Your task to perform on an android device: Go to Android settings Image 0: 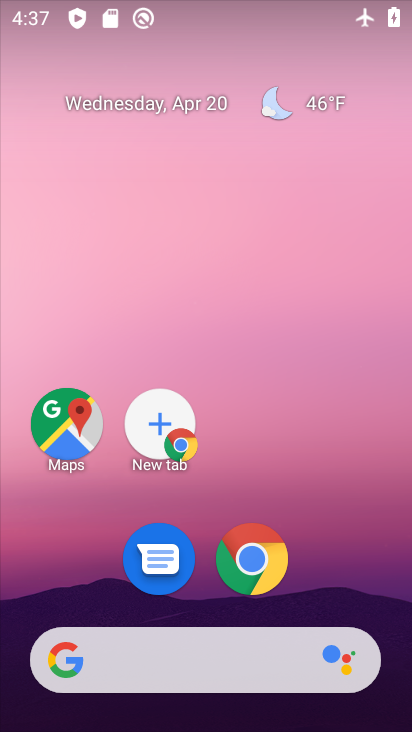
Step 0: drag from (334, 564) to (268, 121)
Your task to perform on an android device: Go to Android settings Image 1: 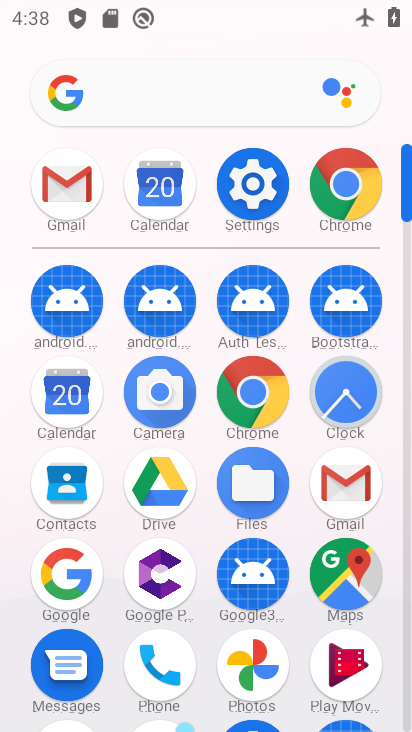
Step 1: click (262, 180)
Your task to perform on an android device: Go to Android settings Image 2: 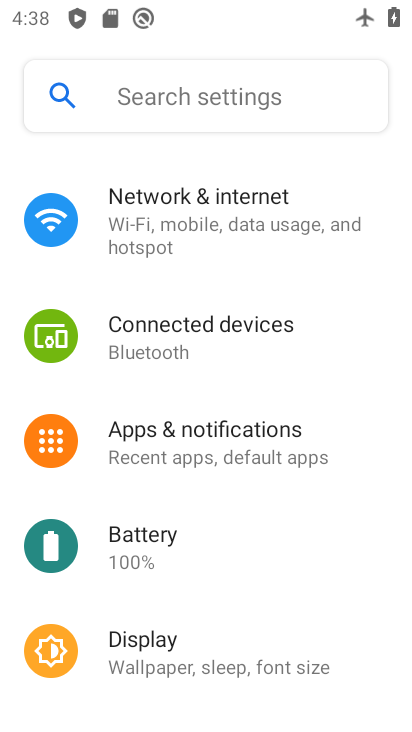
Step 2: drag from (303, 538) to (283, 208)
Your task to perform on an android device: Go to Android settings Image 3: 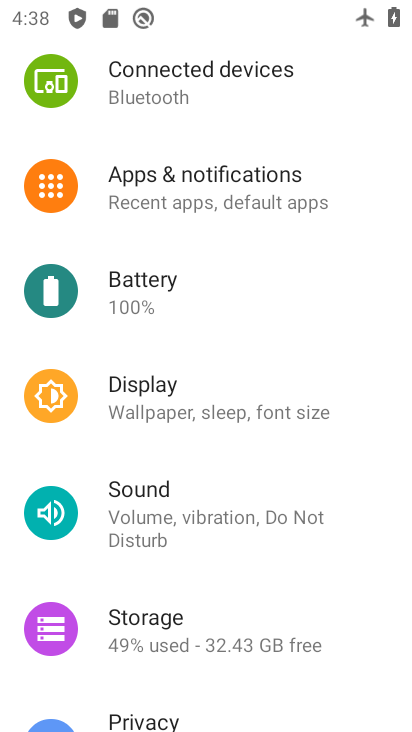
Step 3: drag from (222, 609) to (220, 106)
Your task to perform on an android device: Go to Android settings Image 4: 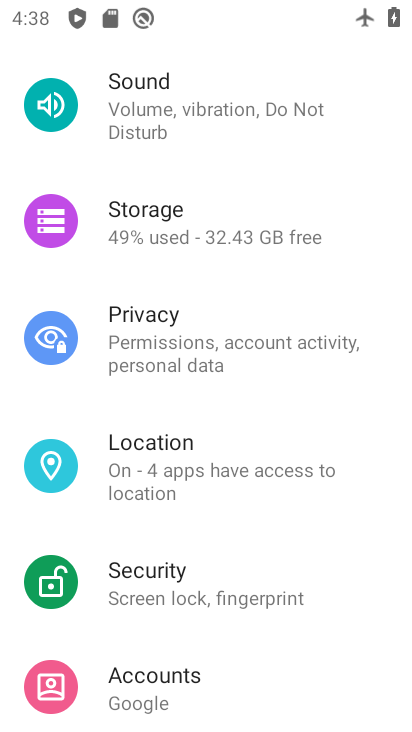
Step 4: drag from (259, 568) to (256, 180)
Your task to perform on an android device: Go to Android settings Image 5: 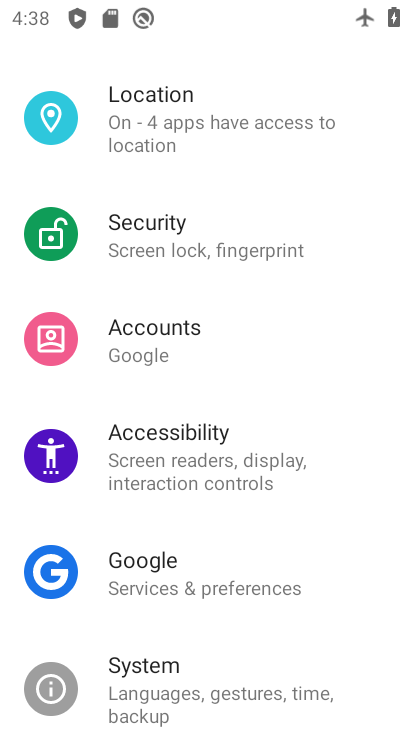
Step 5: drag from (261, 637) to (262, 350)
Your task to perform on an android device: Go to Android settings Image 6: 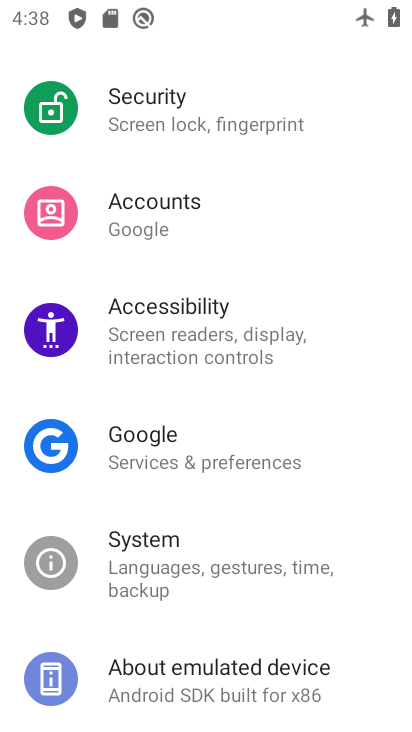
Step 6: click (253, 590)
Your task to perform on an android device: Go to Android settings Image 7: 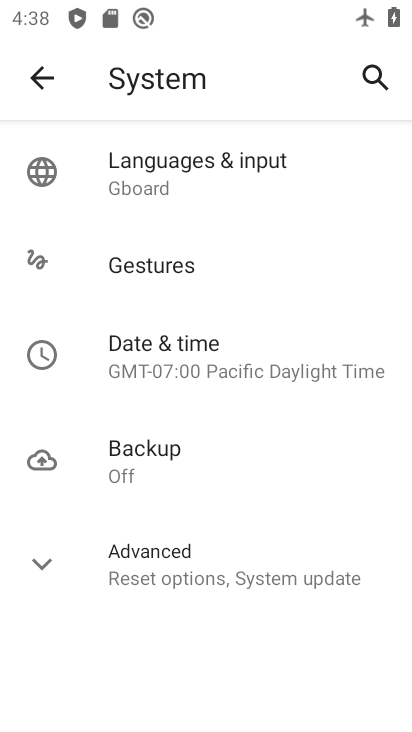
Step 7: click (159, 575)
Your task to perform on an android device: Go to Android settings Image 8: 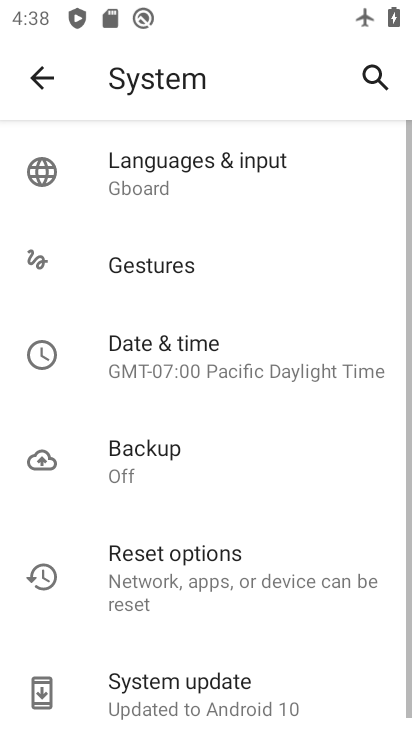
Step 8: drag from (192, 638) to (192, 469)
Your task to perform on an android device: Go to Android settings Image 9: 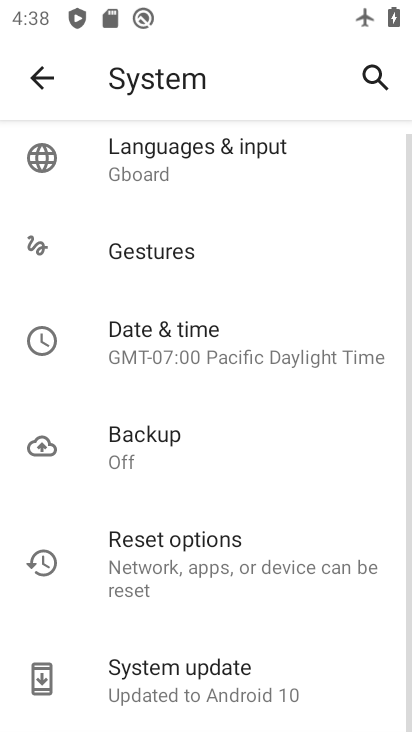
Step 9: click (171, 537)
Your task to perform on an android device: Go to Android settings Image 10: 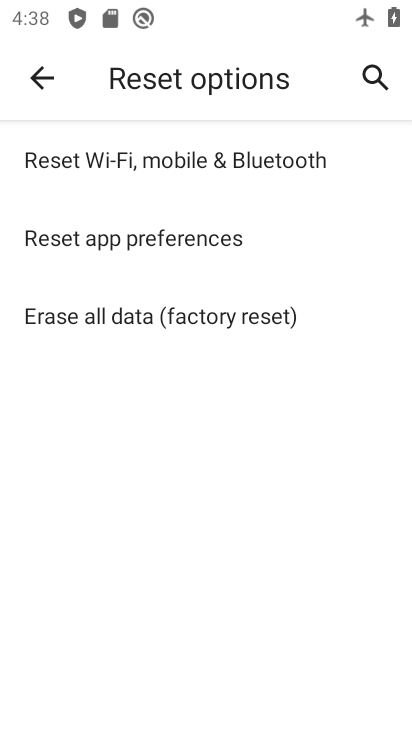
Step 10: task complete